Your task to perform on an android device: Search for Mexican restaurants on Maps Image 0: 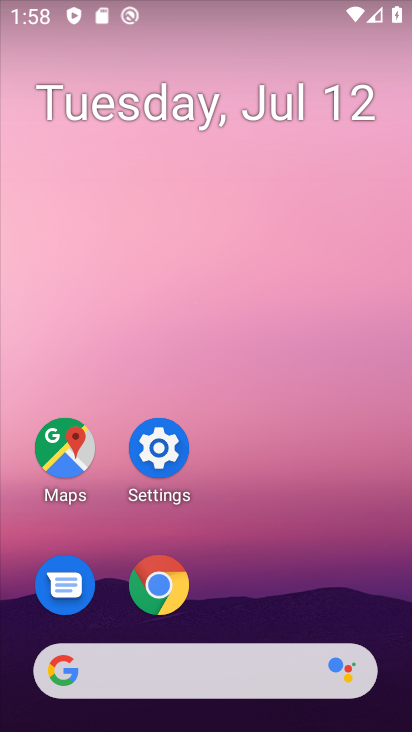
Step 0: click (78, 452)
Your task to perform on an android device: Search for Mexican restaurants on Maps Image 1: 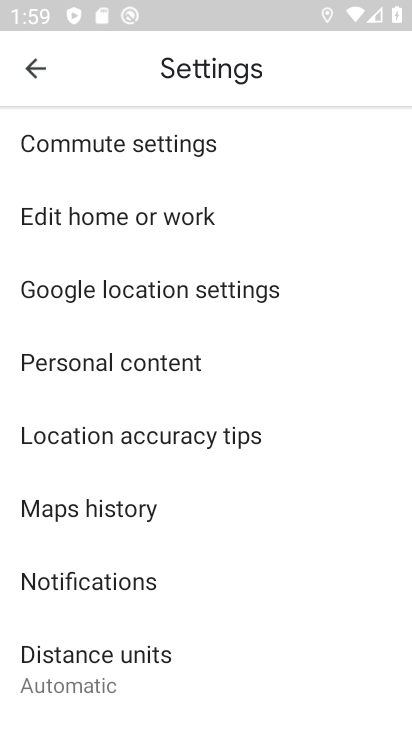
Step 1: click (33, 59)
Your task to perform on an android device: Search for Mexican restaurants on Maps Image 2: 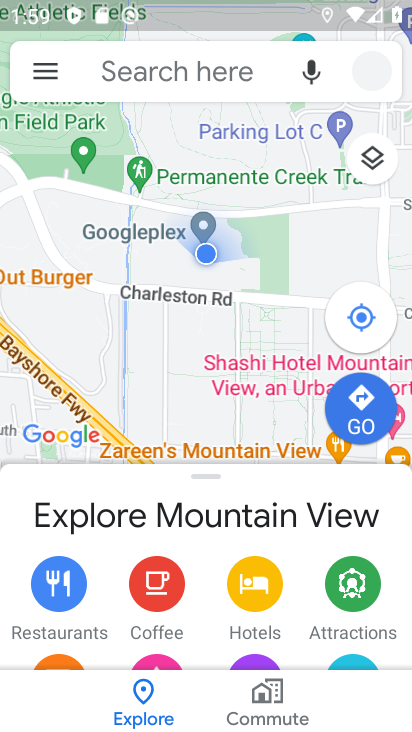
Step 2: click (185, 62)
Your task to perform on an android device: Search for Mexican restaurants on Maps Image 3: 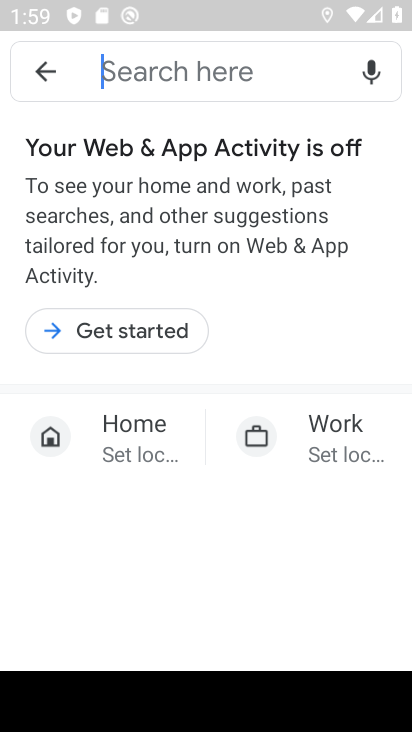
Step 3: type "Mexican restaurants"
Your task to perform on an android device: Search for Mexican restaurants on Maps Image 4: 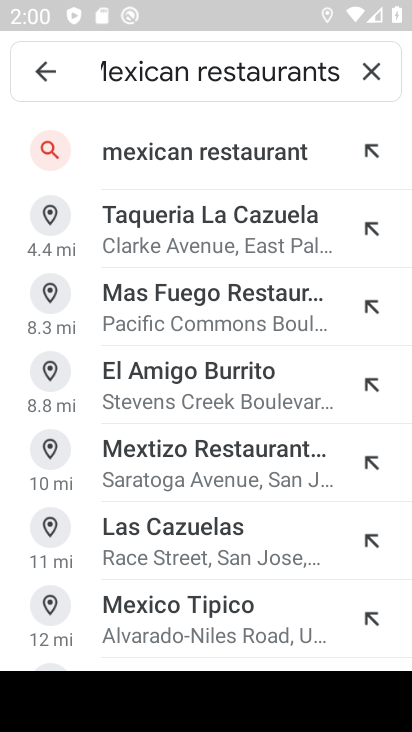
Step 4: click (227, 153)
Your task to perform on an android device: Search for Mexican restaurants on Maps Image 5: 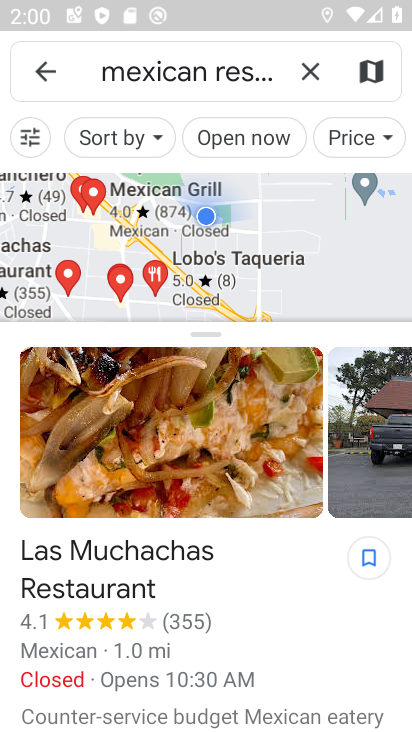
Step 5: task complete